Your task to perform on an android device: delete location history Image 0: 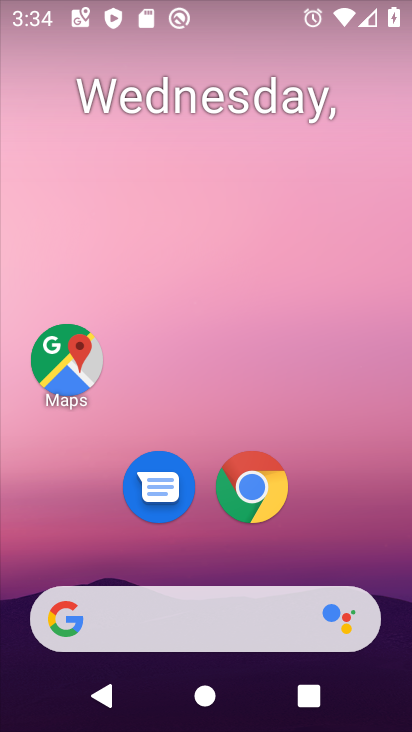
Step 0: drag from (374, 555) to (386, 235)
Your task to perform on an android device: delete location history Image 1: 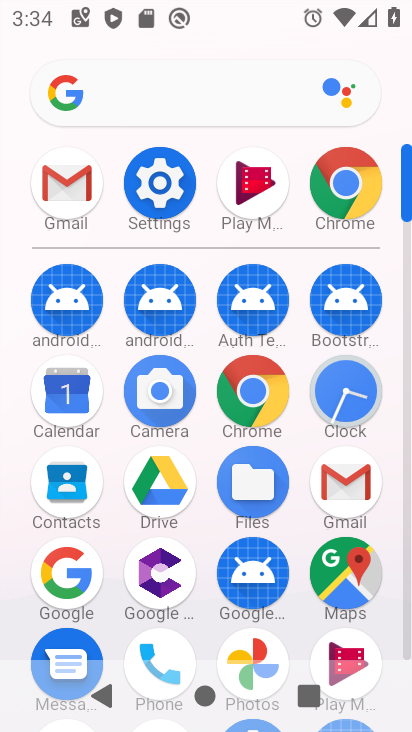
Step 1: click (363, 582)
Your task to perform on an android device: delete location history Image 2: 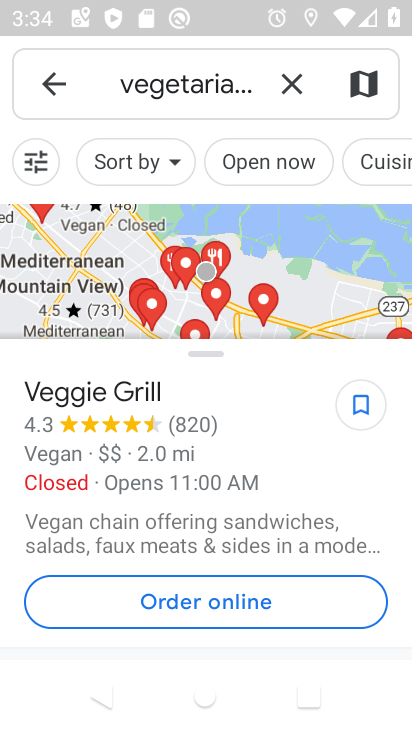
Step 2: press back button
Your task to perform on an android device: delete location history Image 3: 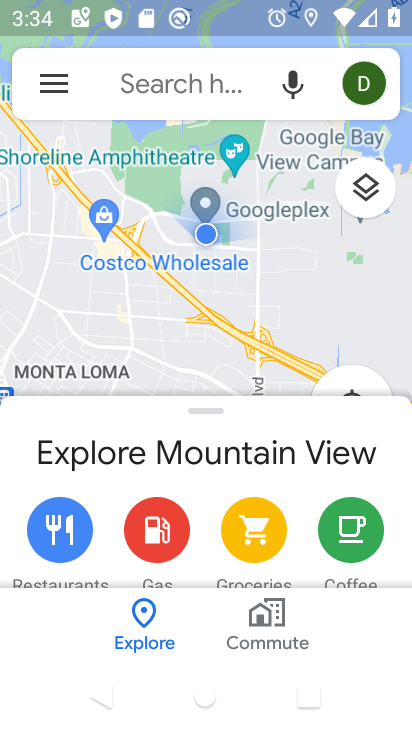
Step 3: click (55, 89)
Your task to perform on an android device: delete location history Image 4: 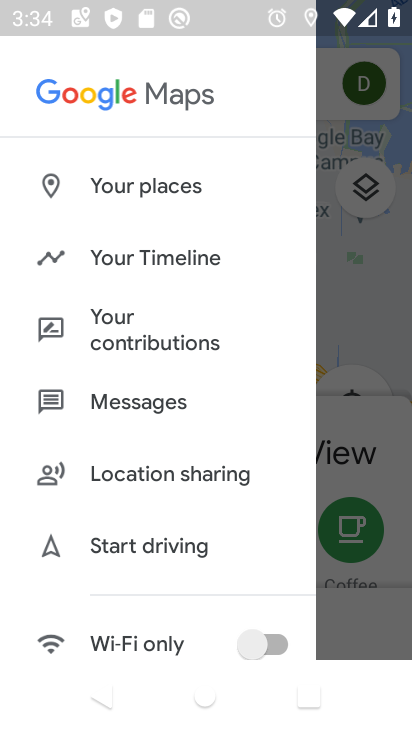
Step 4: click (130, 258)
Your task to perform on an android device: delete location history Image 5: 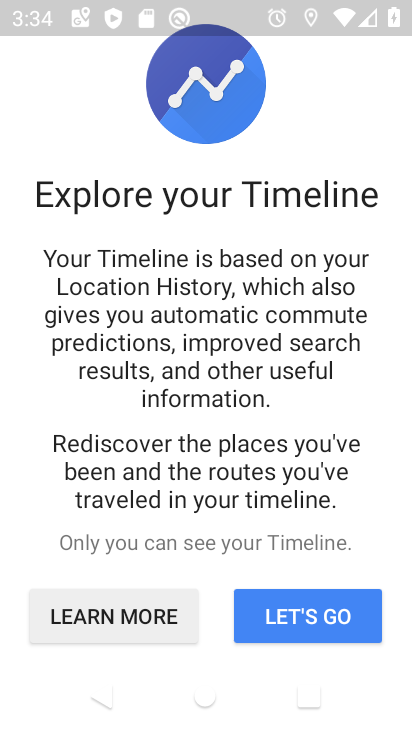
Step 5: click (282, 608)
Your task to perform on an android device: delete location history Image 6: 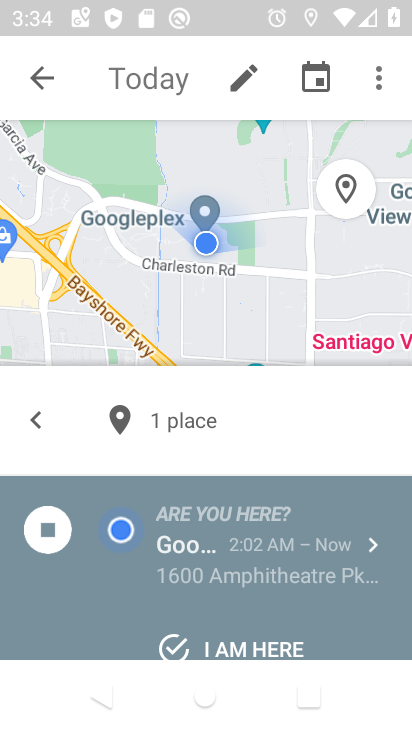
Step 6: click (374, 90)
Your task to perform on an android device: delete location history Image 7: 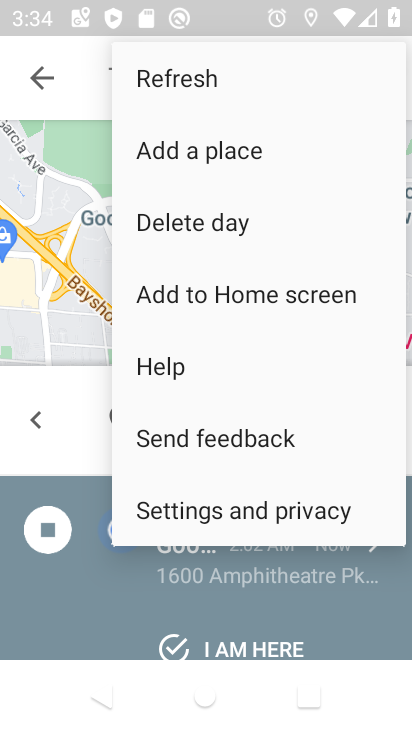
Step 7: click (300, 509)
Your task to perform on an android device: delete location history Image 8: 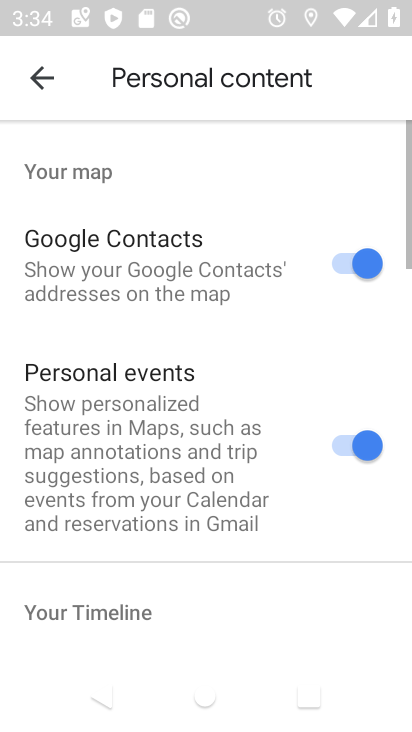
Step 8: drag from (292, 553) to (304, 414)
Your task to perform on an android device: delete location history Image 9: 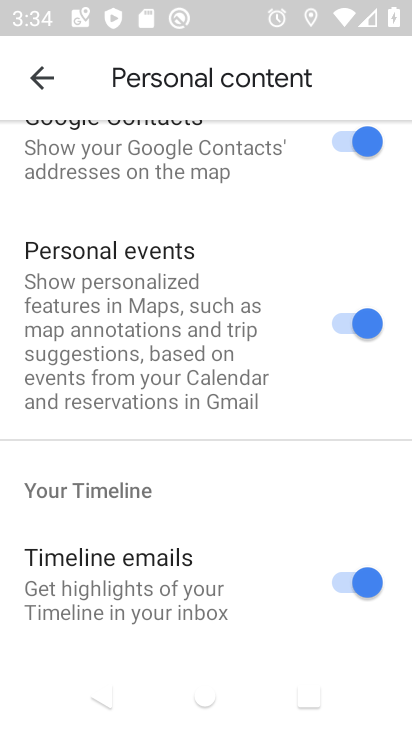
Step 9: drag from (282, 530) to (269, 414)
Your task to perform on an android device: delete location history Image 10: 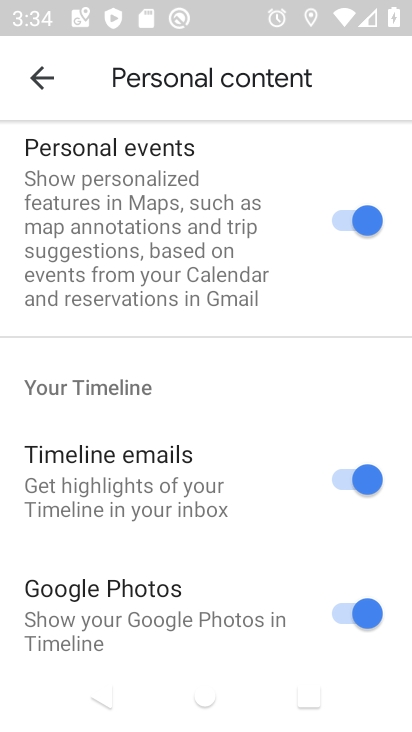
Step 10: drag from (273, 531) to (283, 439)
Your task to perform on an android device: delete location history Image 11: 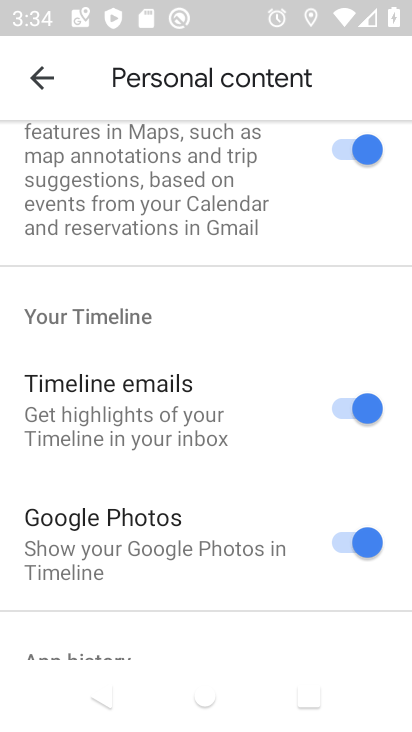
Step 11: drag from (293, 576) to (302, 451)
Your task to perform on an android device: delete location history Image 12: 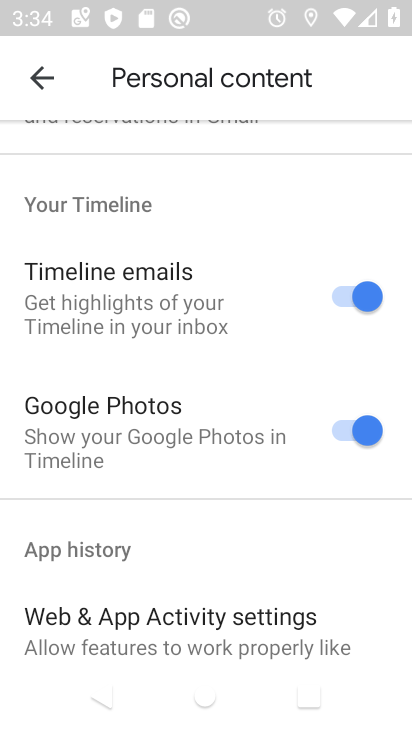
Step 12: drag from (283, 568) to (279, 444)
Your task to perform on an android device: delete location history Image 13: 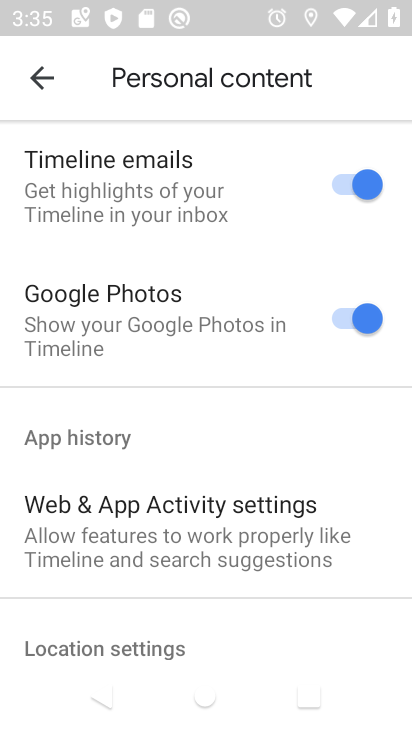
Step 13: drag from (303, 591) to (284, 437)
Your task to perform on an android device: delete location history Image 14: 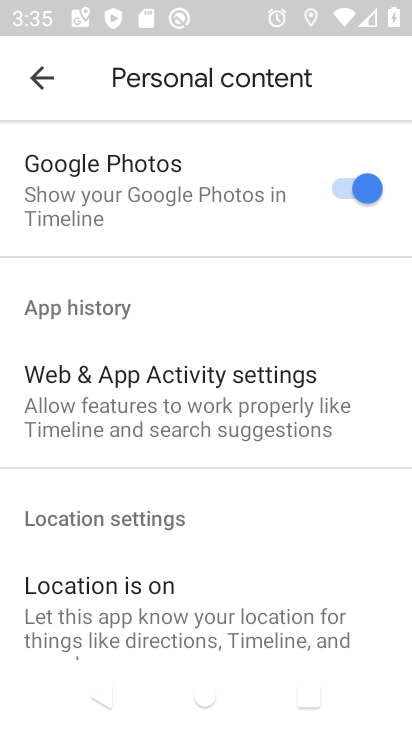
Step 14: drag from (292, 606) to (294, 456)
Your task to perform on an android device: delete location history Image 15: 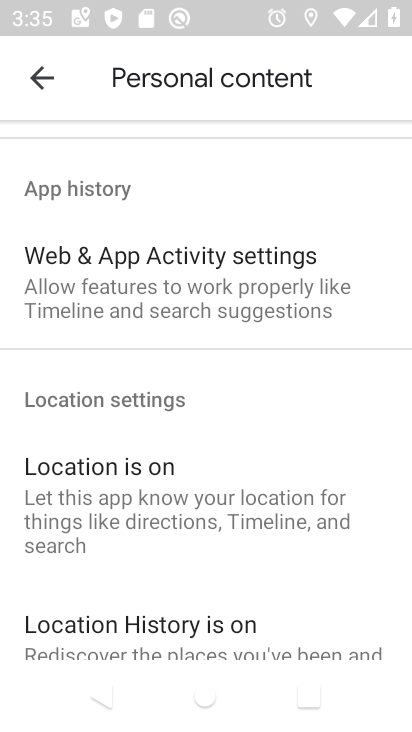
Step 15: drag from (333, 582) to (327, 354)
Your task to perform on an android device: delete location history Image 16: 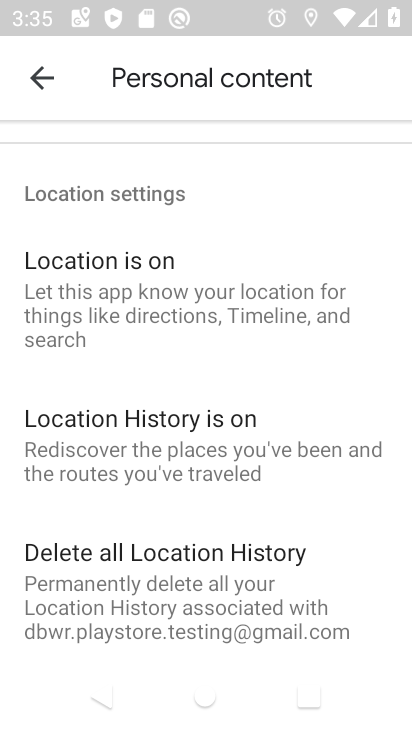
Step 16: drag from (351, 542) to (337, 310)
Your task to perform on an android device: delete location history Image 17: 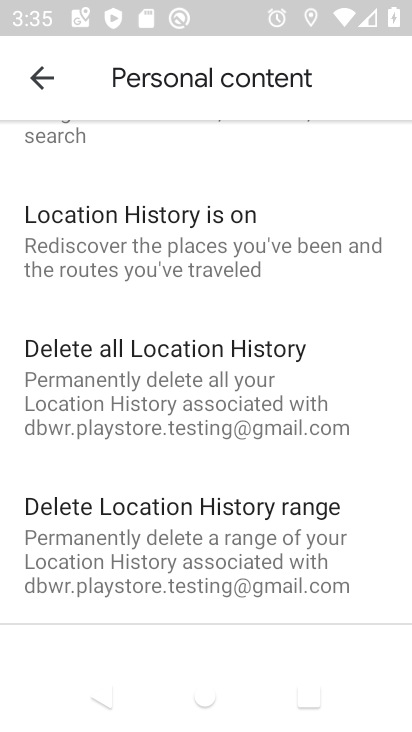
Step 17: click (263, 391)
Your task to perform on an android device: delete location history Image 18: 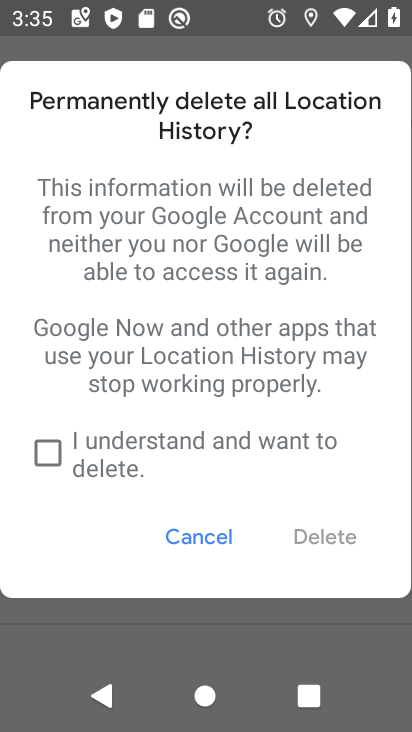
Step 18: click (52, 460)
Your task to perform on an android device: delete location history Image 19: 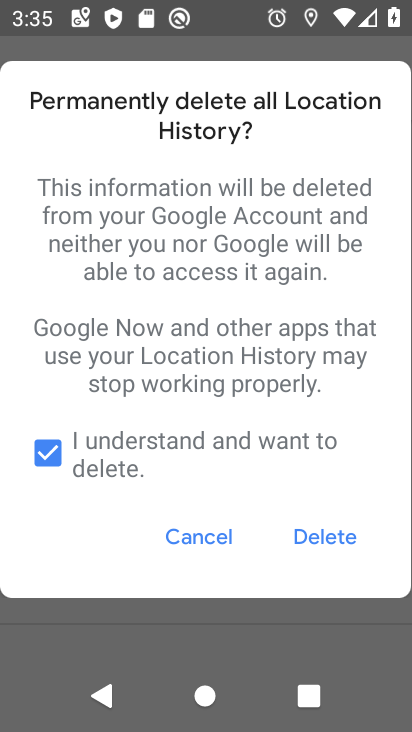
Step 19: click (337, 538)
Your task to perform on an android device: delete location history Image 20: 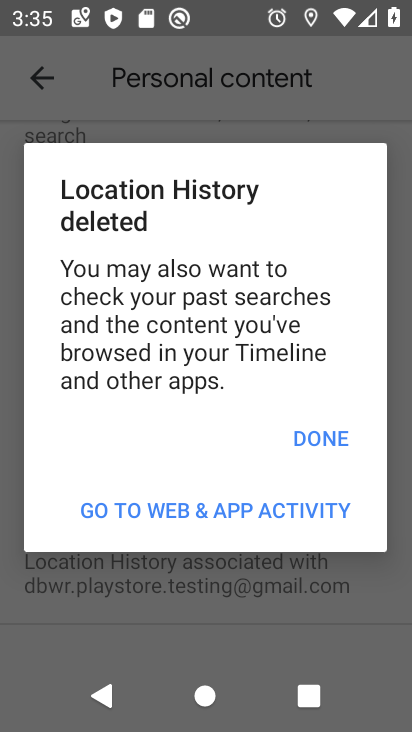
Step 20: task complete